Your task to perform on an android device: turn on priority inbox in the gmail app Image 0: 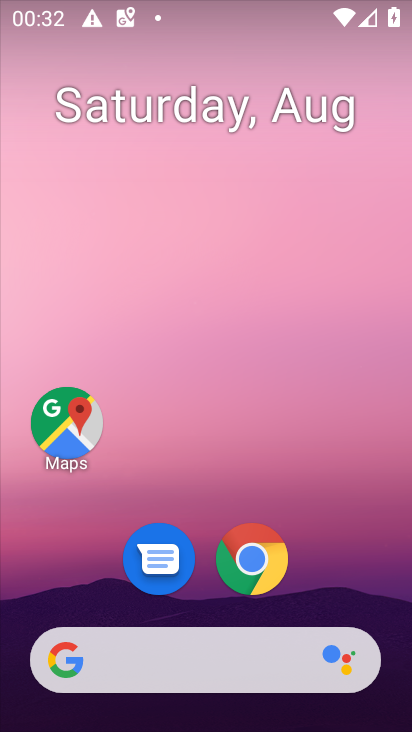
Step 0: drag from (398, 618) to (268, 78)
Your task to perform on an android device: turn on priority inbox in the gmail app Image 1: 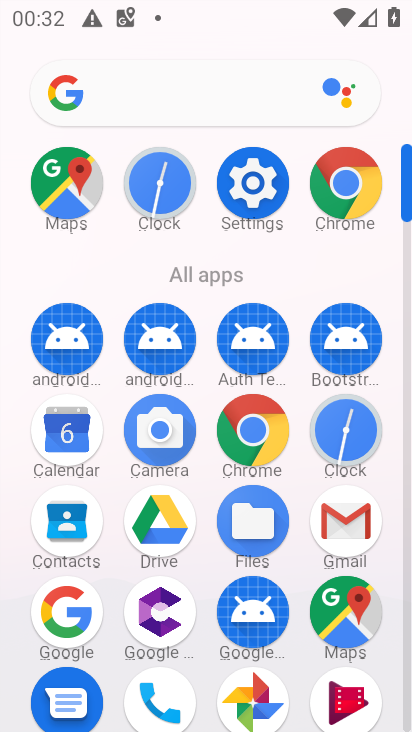
Step 1: click (345, 535)
Your task to perform on an android device: turn on priority inbox in the gmail app Image 2: 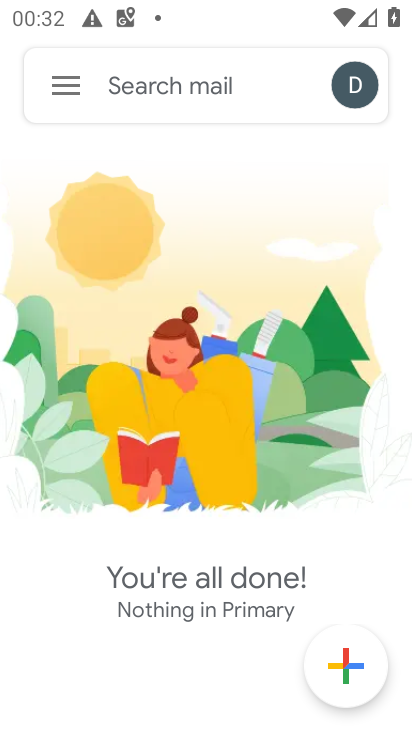
Step 2: click (69, 103)
Your task to perform on an android device: turn on priority inbox in the gmail app Image 3: 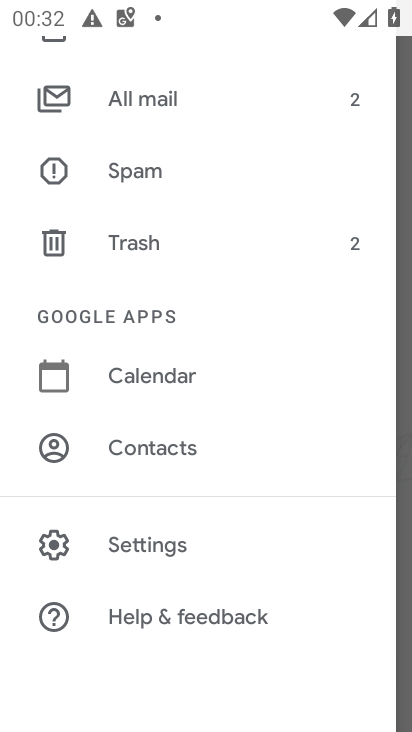
Step 3: drag from (301, 117) to (192, 43)
Your task to perform on an android device: turn on priority inbox in the gmail app Image 4: 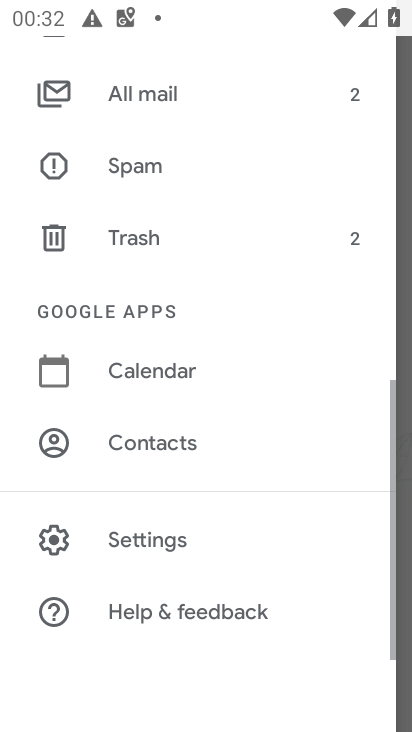
Step 4: click (164, 533)
Your task to perform on an android device: turn on priority inbox in the gmail app Image 5: 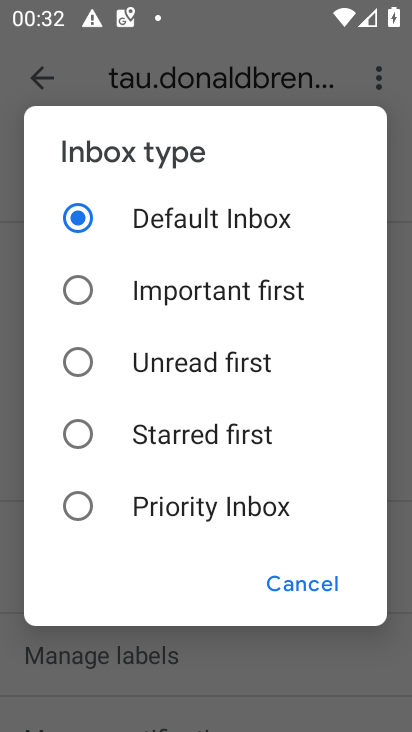
Step 5: click (204, 510)
Your task to perform on an android device: turn on priority inbox in the gmail app Image 6: 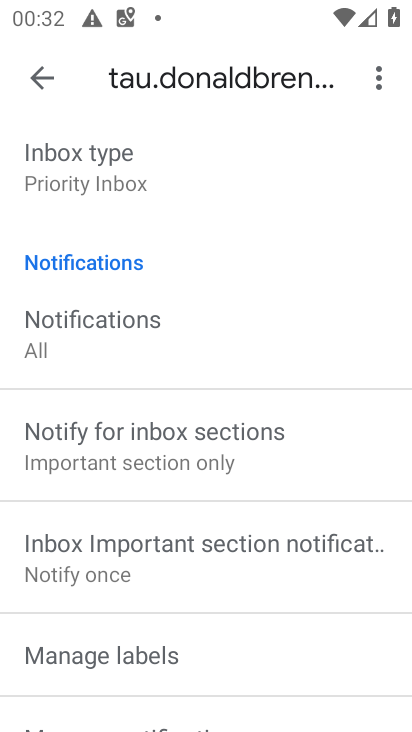
Step 6: task complete